Your task to perform on an android device: Go to Google Image 0: 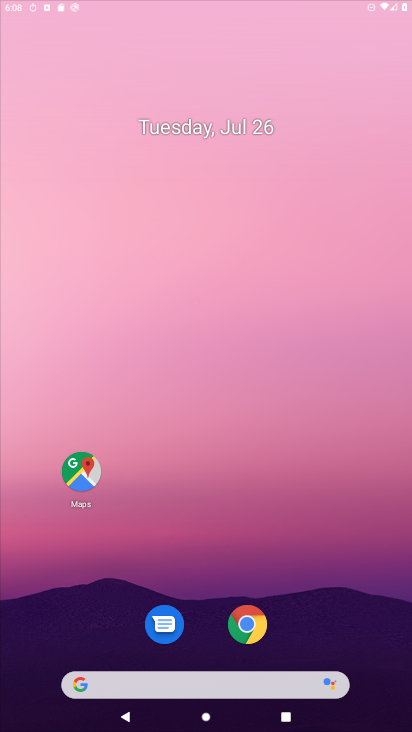
Step 0: press home button
Your task to perform on an android device: Go to Google Image 1: 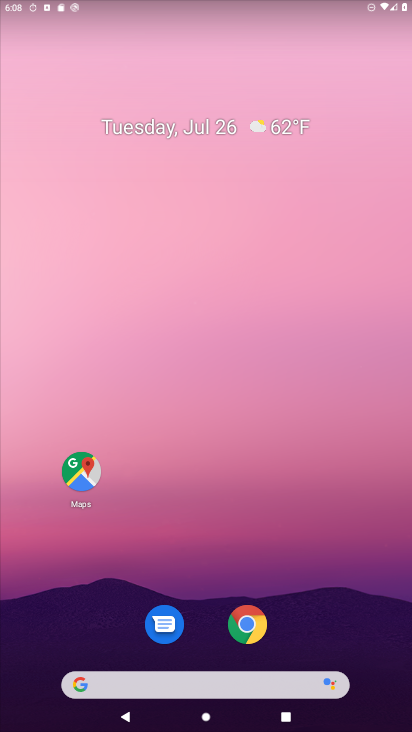
Step 1: drag from (187, 694) to (177, 5)
Your task to perform on an android device: Go to Google Image 2: 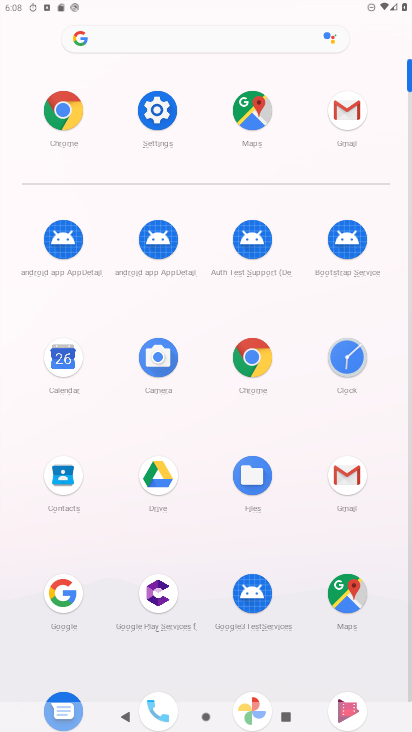
Step 2: click (262, 350)
Your task to perform on an android device: Go to Google Image 3: 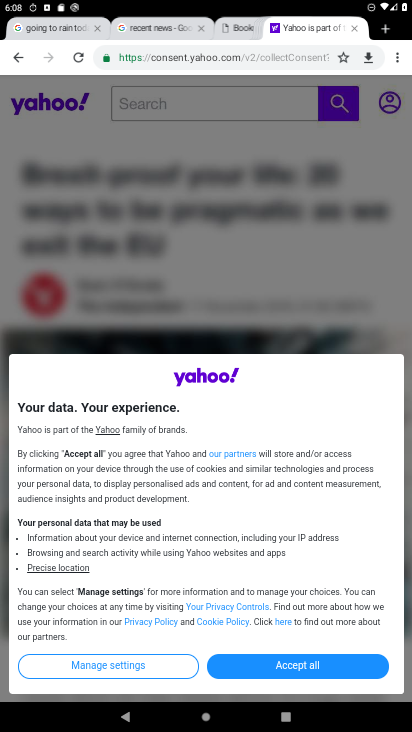
Step 3: task complete